Your task to perform on an android device: View the shopping cart on target.com. Add "razer blade" to the cart on target.com, then select checkout. Image 0: 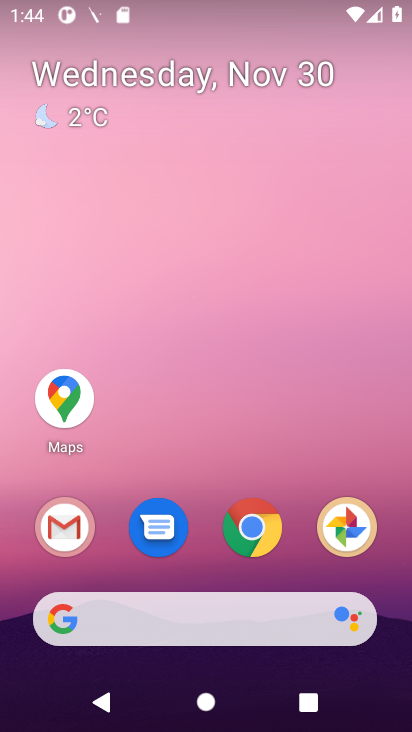
Step 0: task complete